Your task to perform on an android device: Do I have any events this weekend? Image 0: 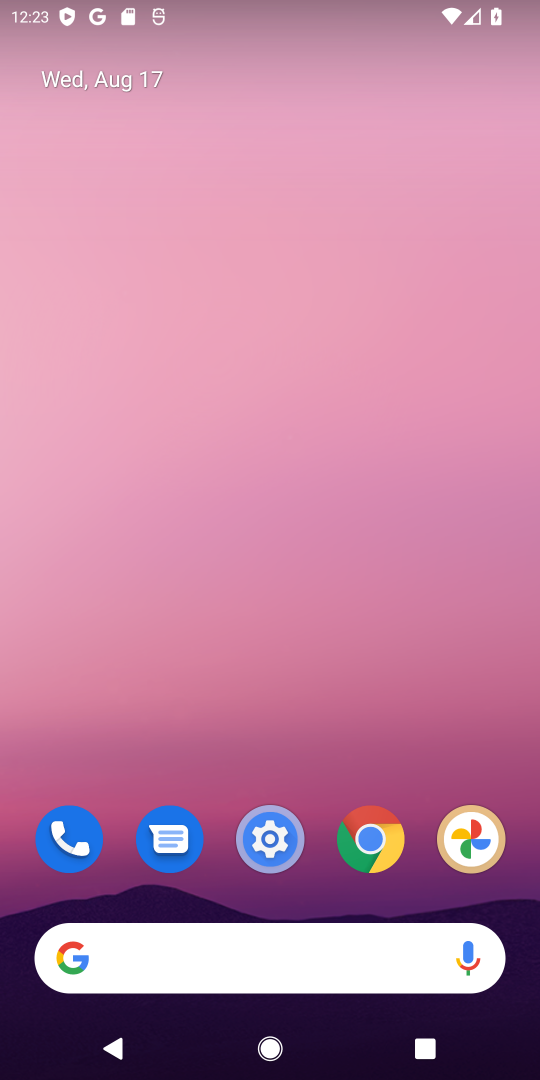
Step 0: drag from (259, 967) to (286, 366)
Your task to perform on an android device: Do I have any events this weekend? Image 1: 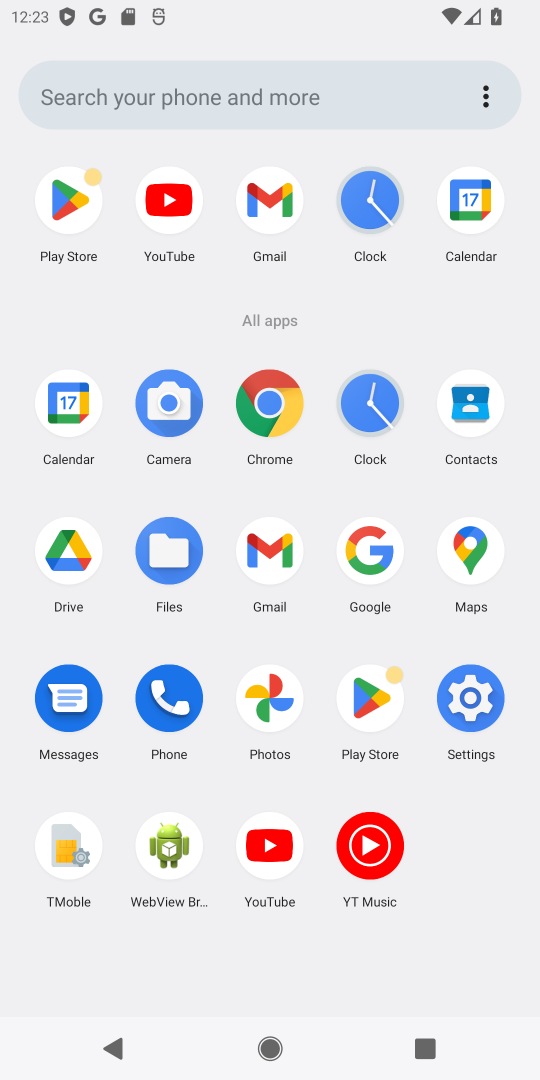
Step 1: click (468, 200)
Your task to perform on an android device: Do I have any events this weekend? Image 2: 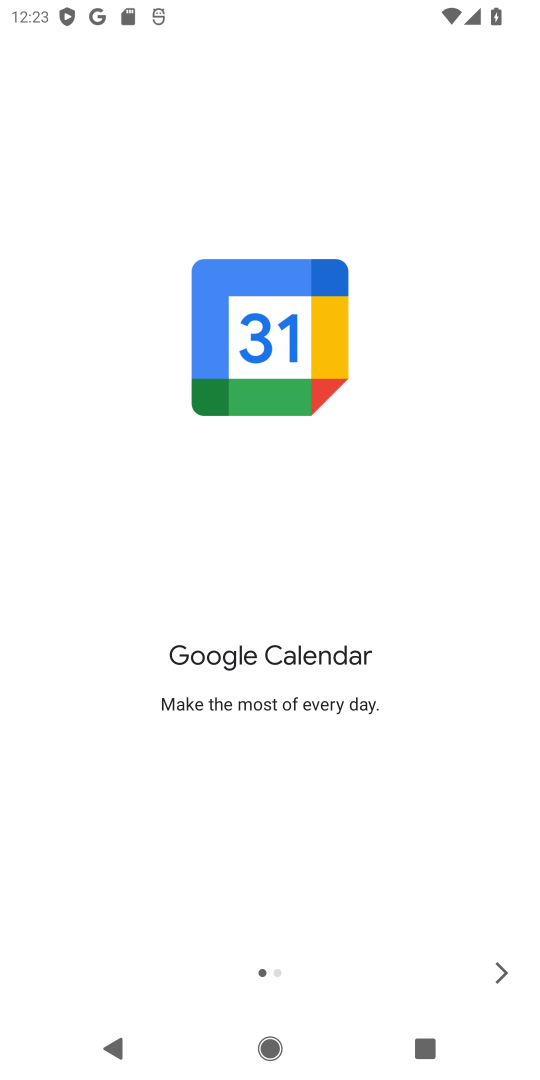
Step 2: click (498, 973)
Your task to perform on an android device: Do I have any events this weekend? Image 3: 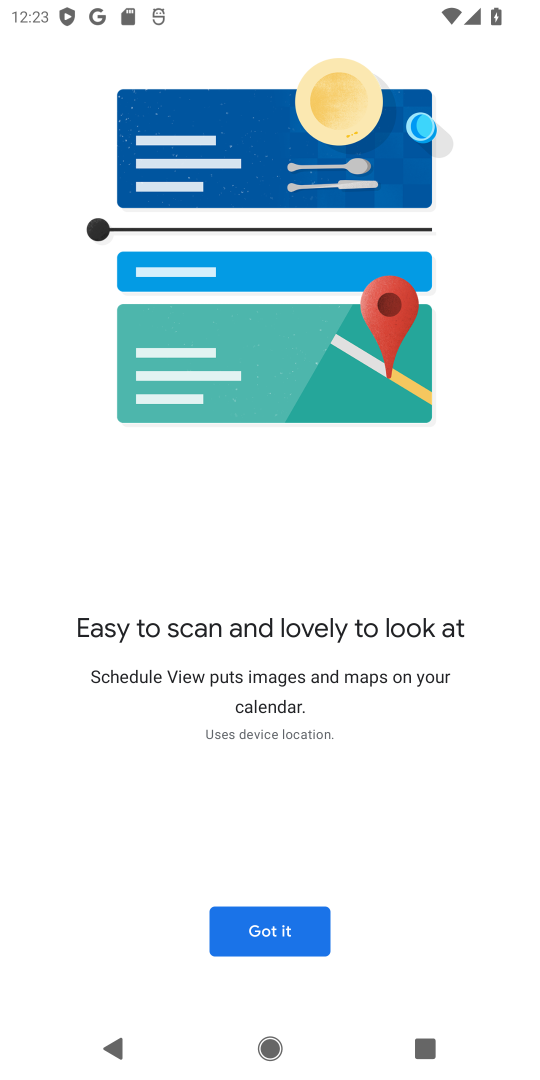
Step 3: click (278, 941)
Your task to perform on an android device: Do I have any events this weekend? Image 4: 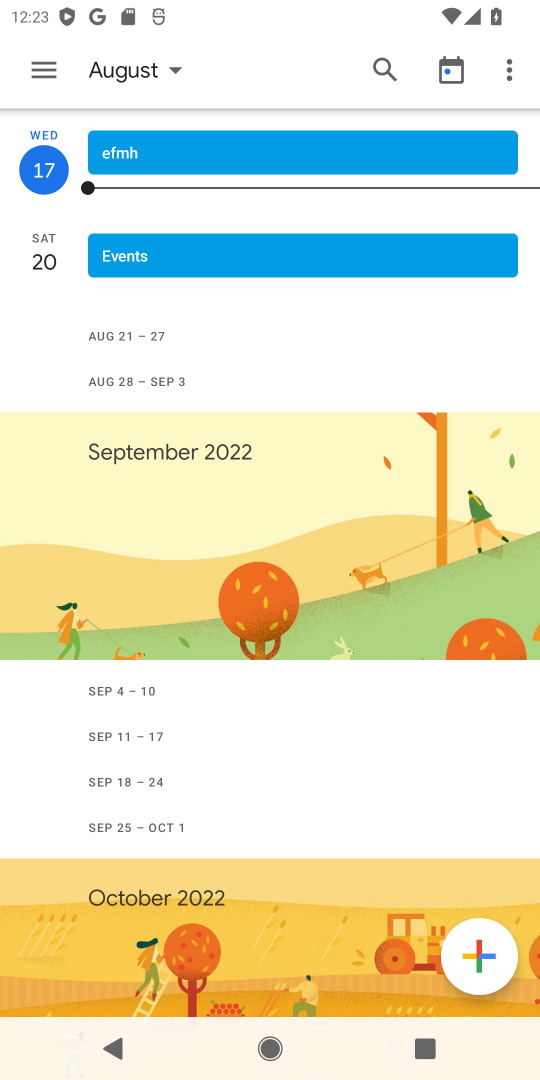
Step 4: click (168, 77)
Your task to perform on an android device: Do I have any events this weekend? Image 5: 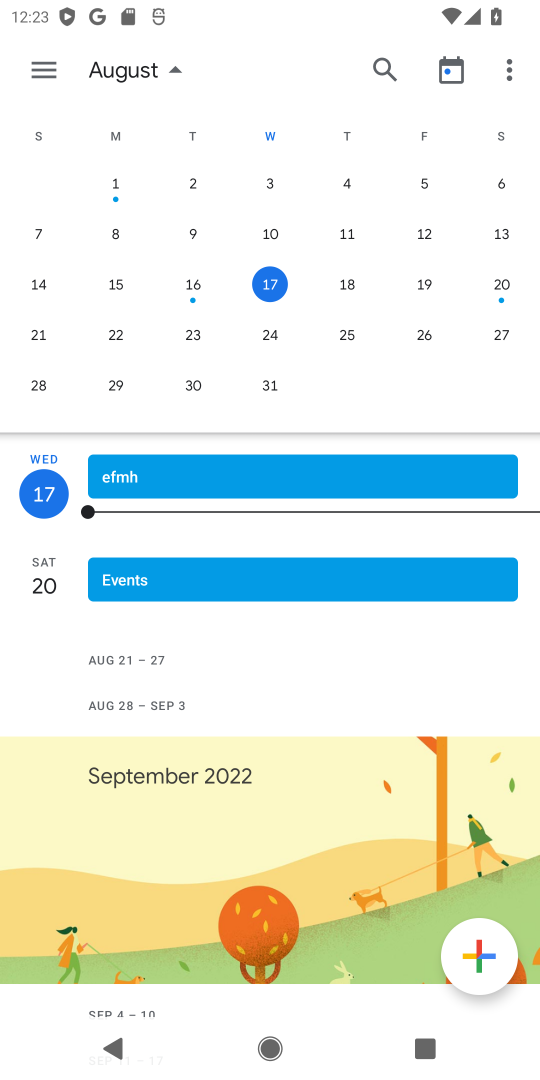
Step 5: click (512, 284)
Your task to perform on an android device: Do I have any events this weekend? Image 6: 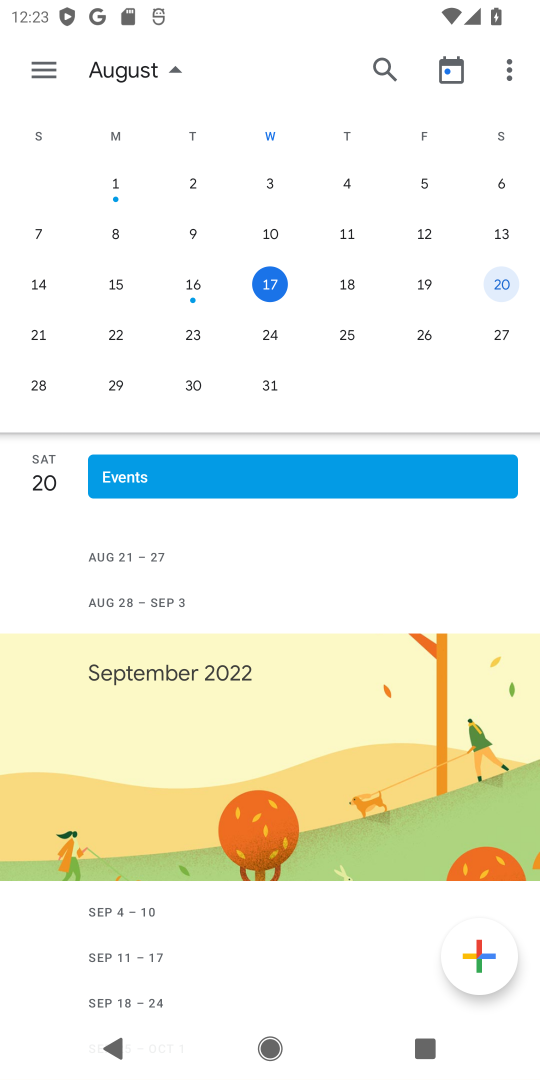
Step 6: click (46, 67)
Your task to perform on an android device: Do I have any events this weekend? Image 7: 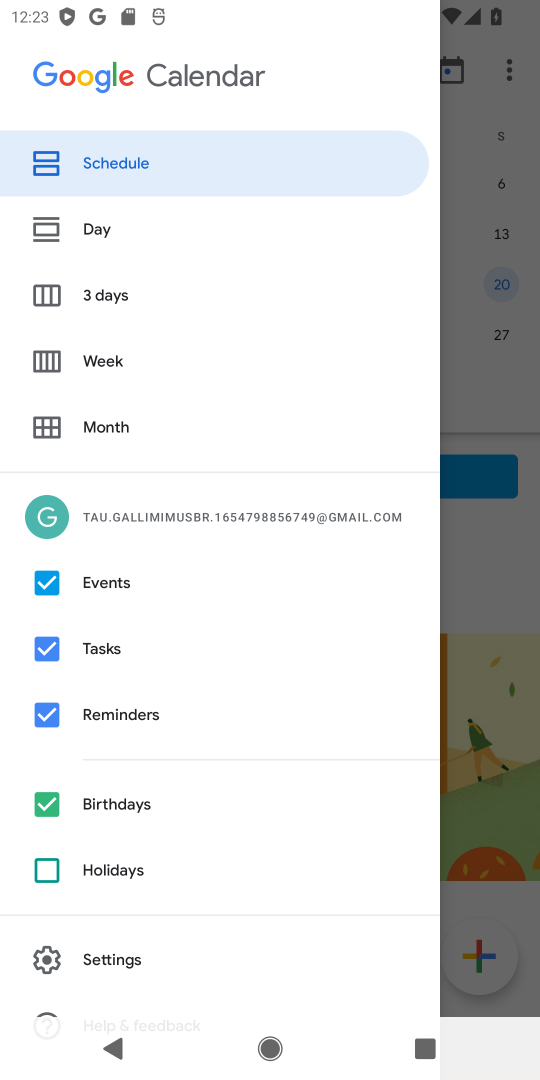
Step 7: click (104, 359)
Your task to perform on an android device: Do I have any events this weekend? Image 8: 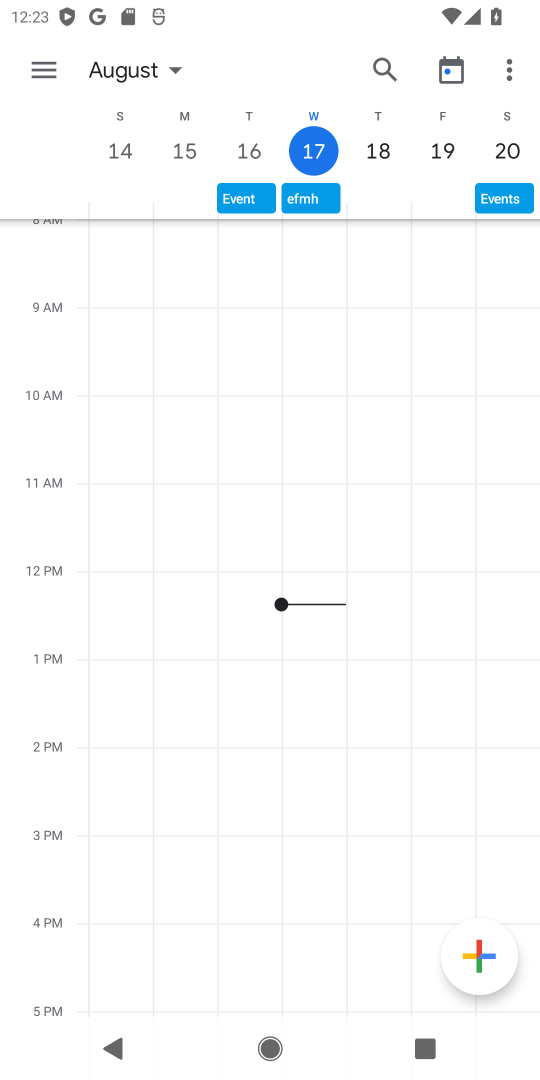
Step 8: task complete